Your task to perform on an android device: check battery use Image 0: 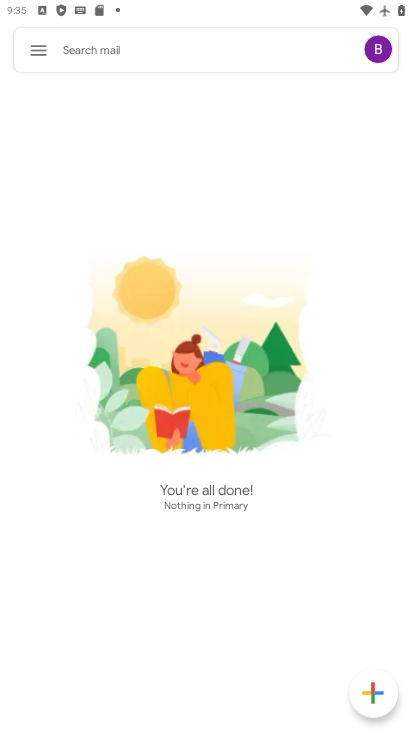
Step 0: press home button
Your task to perform on an android device: check battery use Image 1: 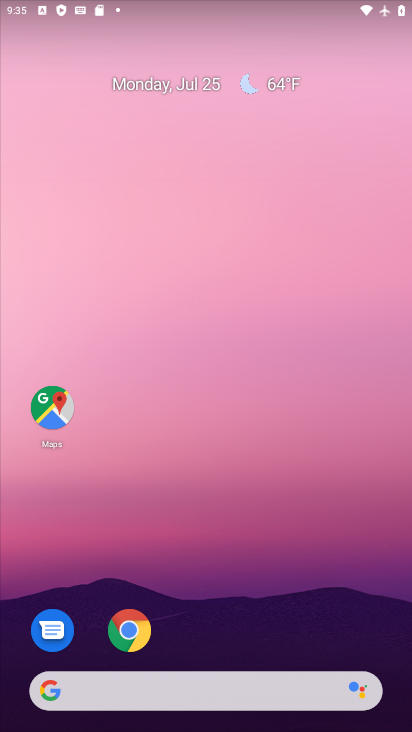
Step 1: drag from (386, 655) to (313, 170)
Your task to perform on an android device: check battery use Image 2: 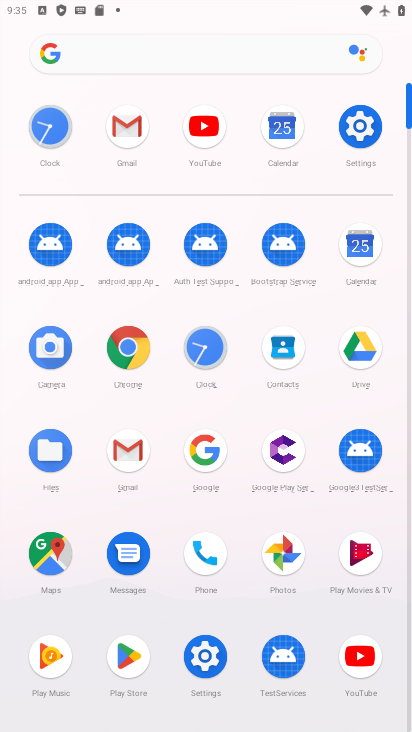
Step 2: click (204, 656)
Your task to perform on an android device: check battery use Image 3: 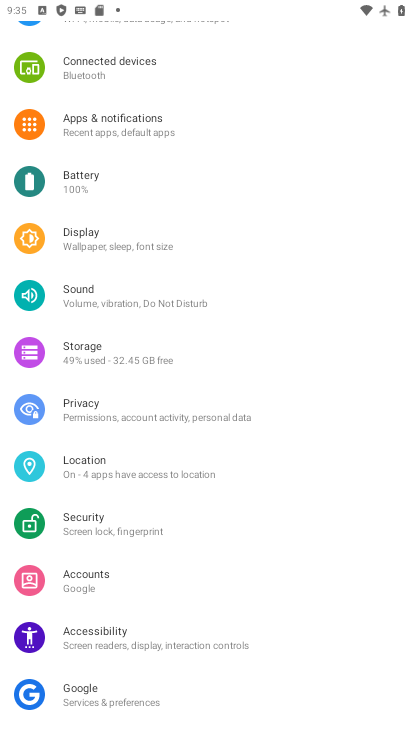
Step 3: click (76, 170)
Your task to perform on an android device: check battery use Image 4: 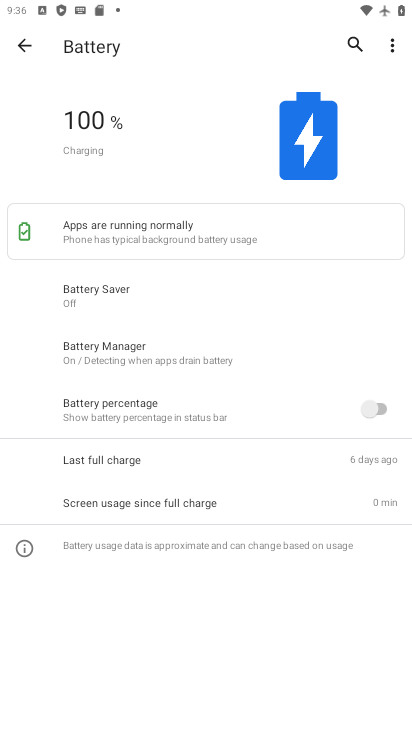
Step 4: click (391, 49)
Your task to perform on an android device: check battery use Image 5: 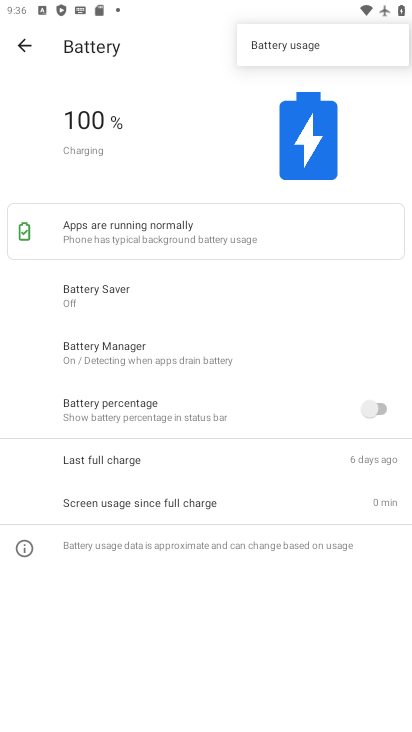
Step 5: click (276, 45)
Your task to perform on an android device: check battery use Image 6: 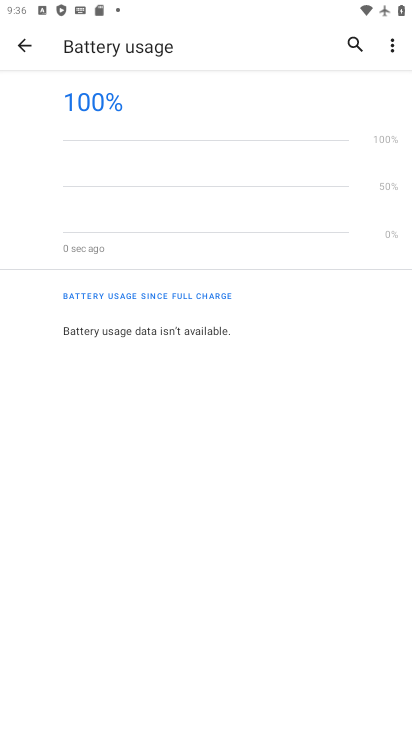
Step 6: task complete